Your task to perform on an android device: change the clock display to analog Image 0: 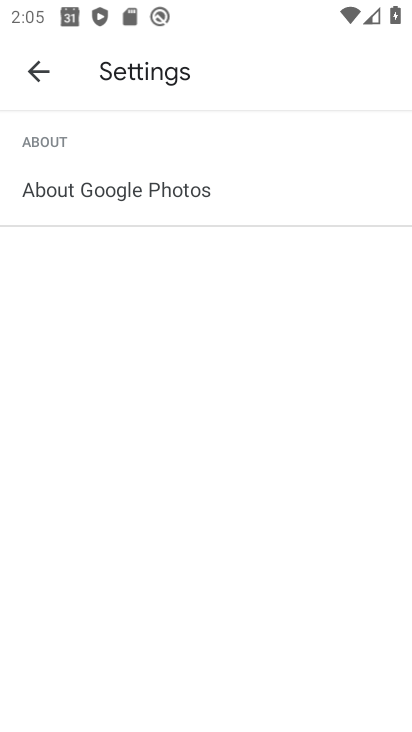
Step 0: press home button
Your task to perform on an android device: change the clock display to analog Image 1: 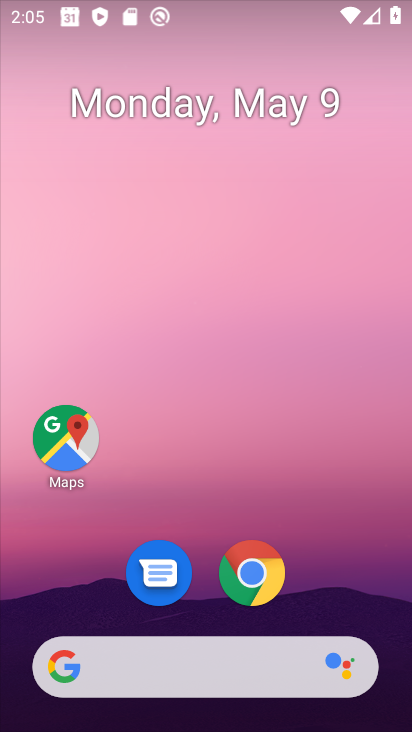
Step 1: drag from (342, 662) to (215, 156)
Your task to perform on an android device: change the clock display to analog Image 2: 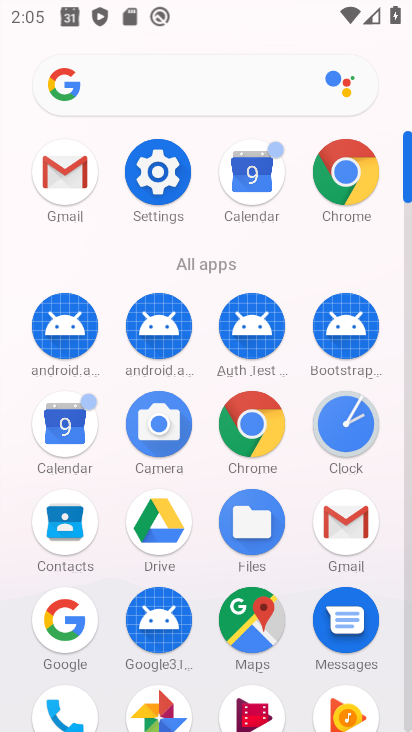
Step 2: click (341, 426)
Your task to perform on an android device: change the clock display to analog Image 3: 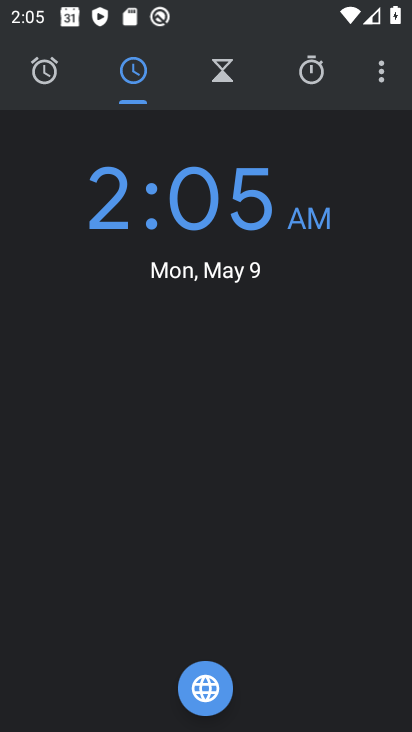
Step 3: click (376, 66)
Your task to perform on an android device: change the clock display to analog Image 4: 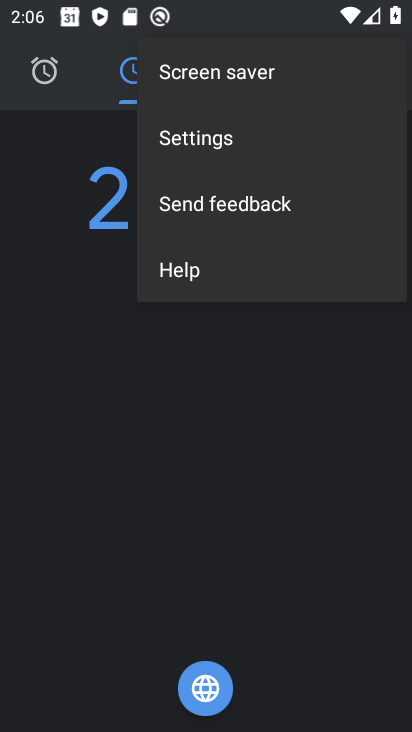
Step 4: click (178, 139)
Your task to perform on an android device: change the clock display to analog Image 5: 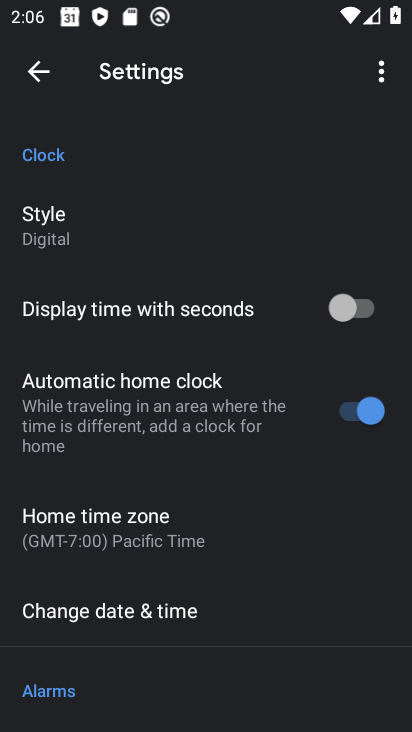
Step 5: click (120, 210)
Your task to perform on an android device: change the clock display to analog Image 6: 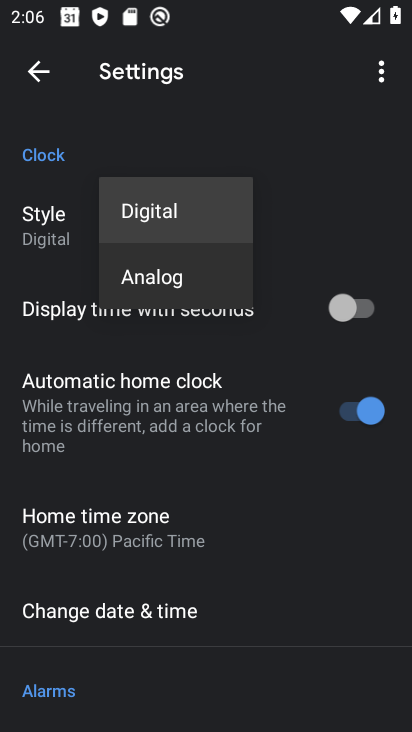
Step 6: click (166, 278)
Your task to perform on an android device: change the clock display to analog Image 7: 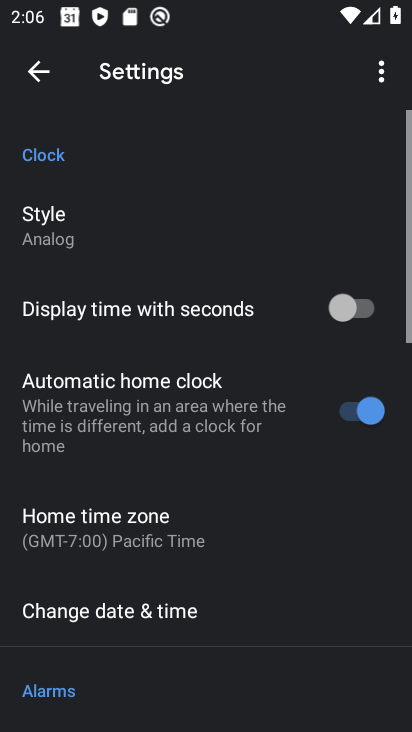
Step 7: task complete